Your task to perform on an android device: check data usage Image 0: 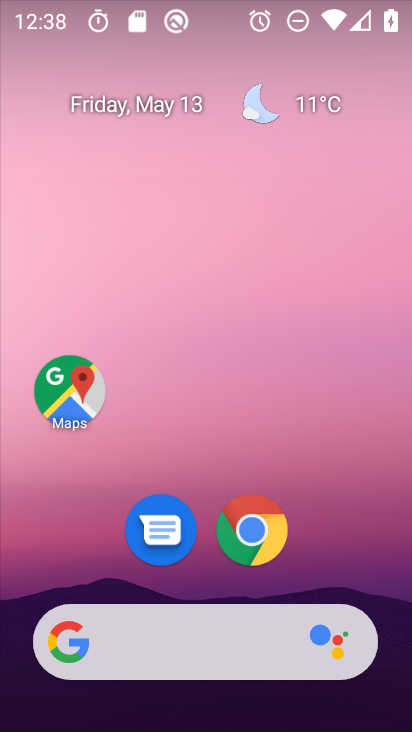
Step 0: press home button
Your task to perform on an android device: check data usage Image 1: 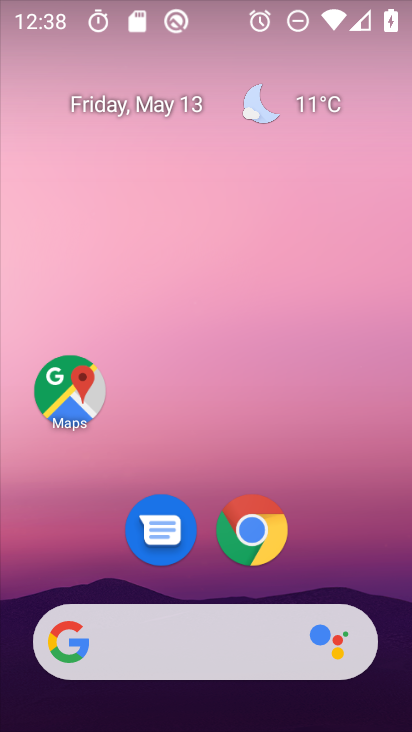
Step 1: drag from (163, 645) to (285, 62)
Your task to perform on an android device: check data usage Image 2: 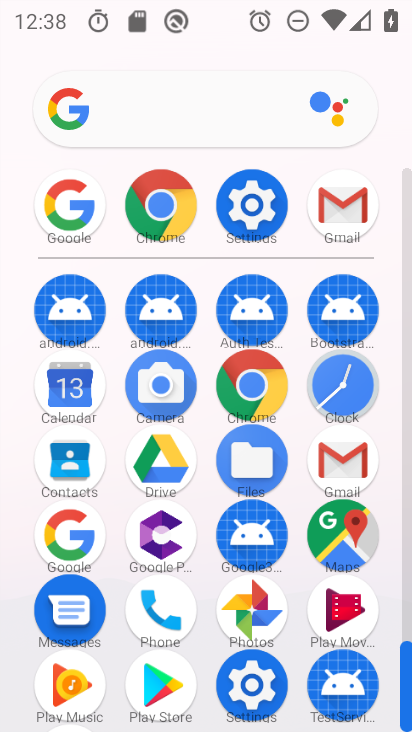
Step 2: click (255, 217)
Your task to perform on an android device: check data usage Image 3: 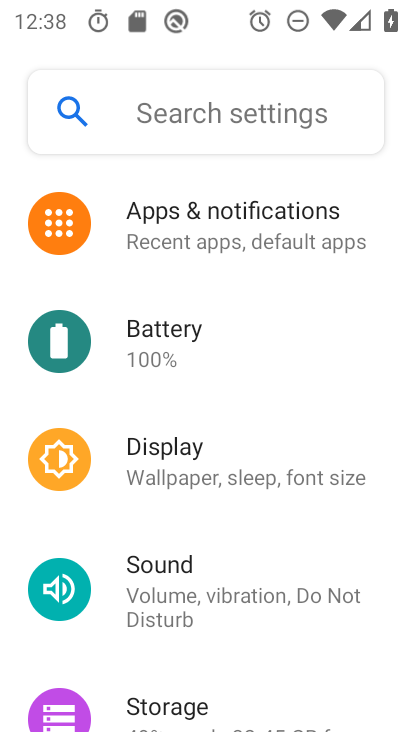
Step 3: drag from (265, 260) to (238, 641)
Your task to perform on an android device: check data usage Image 4: 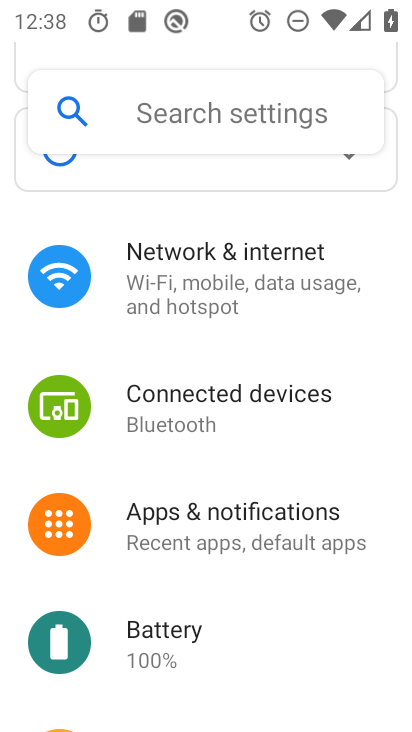
Step 4: click (228, 270)
Your task to perform on an android device: check data usage Image 5: 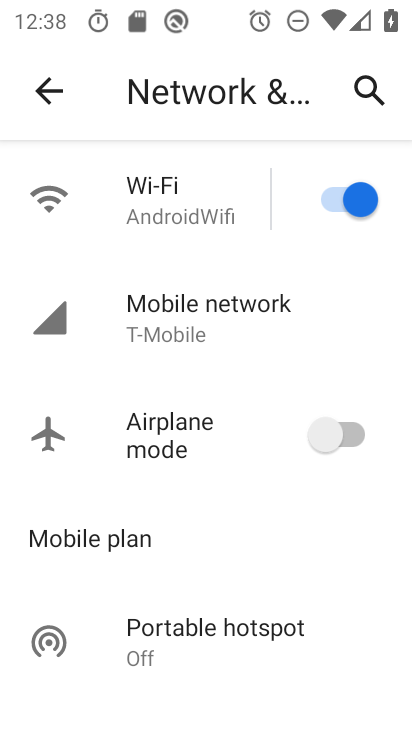
Step 5: click (163, 204)
Your task to perform on an android device: check data usage Image 6: 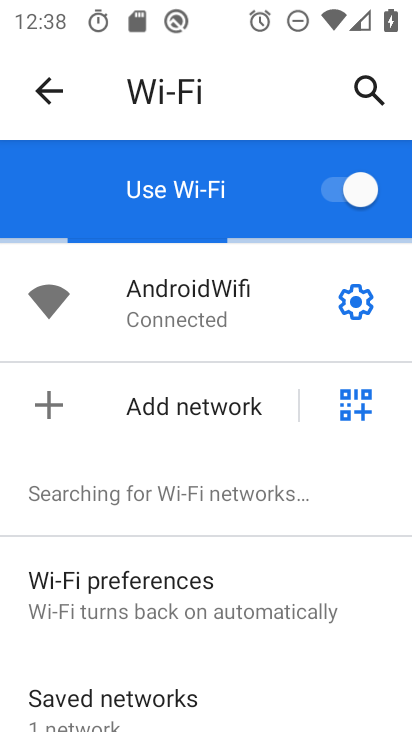
Step 6: drag from (218, 675) to (313, 263)
Your task to perform on an android device: check data usage Image 7: 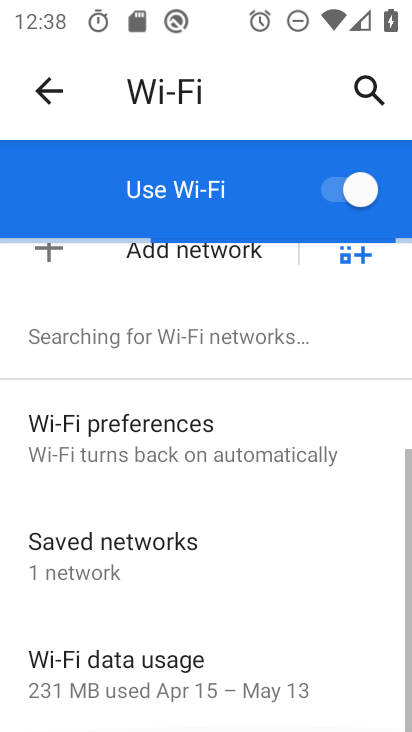
Step 7: click (122, 680)
Your task to perform on an android device: check data usage Image 8: 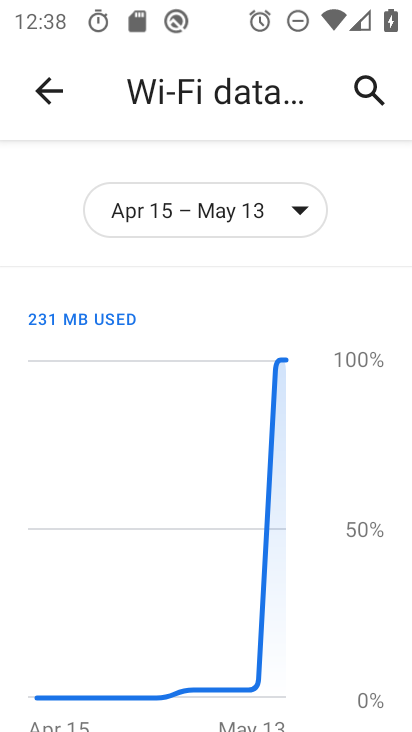
Step 8: task complete